Your task to perform on an android device: Open Google Chrome and open the bookmarks view Image 0: 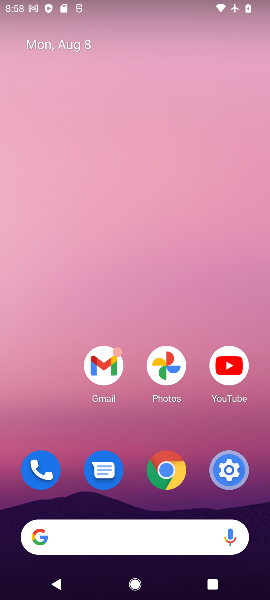
Step 0: click (162, 471)
Your task to perform on an android device: Open Google Chrome and open the bookmarks view Image 1: 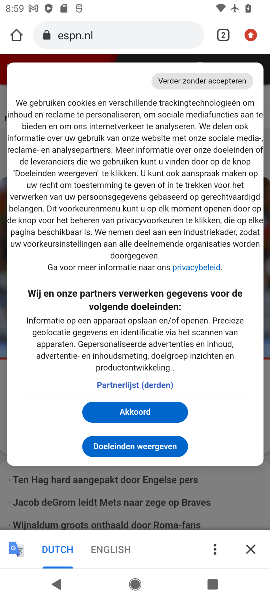
Step 1: click (250, 38)
Your task to perform on an android device: Open Google Chrome and open the bookmarks view Image 2: 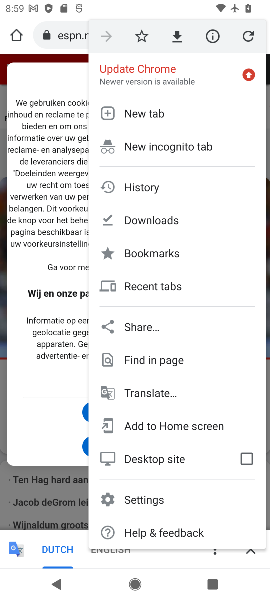
Step 2: click (135, 250)
Your task to perform on an android device: Open Google Chrome and open the bookmarks view Image 3: 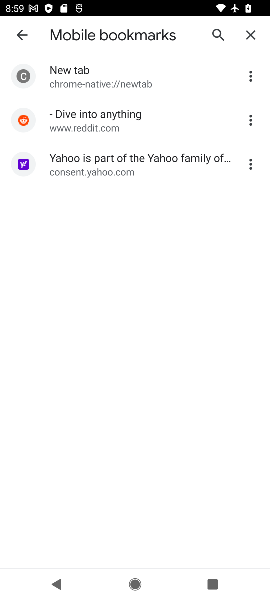
Step 3: task complete